Your task to perform on an android device: Open privacy settings Image 0: 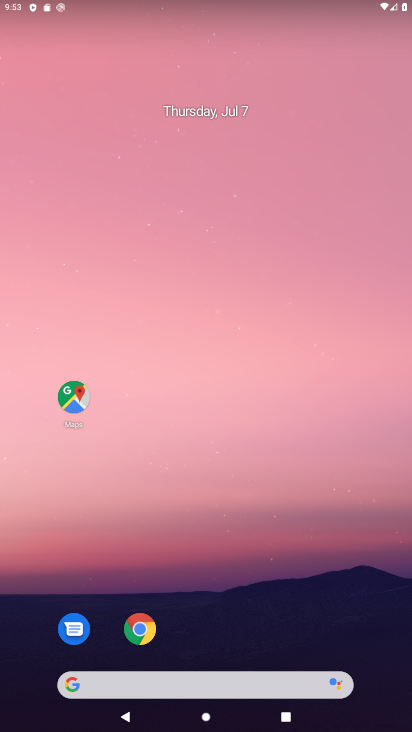
Step 0: drag from (387, 653) to (350, 177)
Your task to perform on an android device: Open privacy settings Image 1: 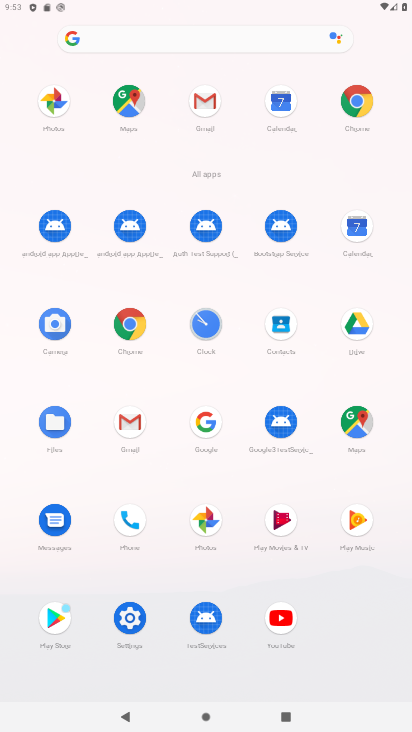
Step 1: click (130, 617)
Your task to perform on an android device: Open privacy settings Image 2: 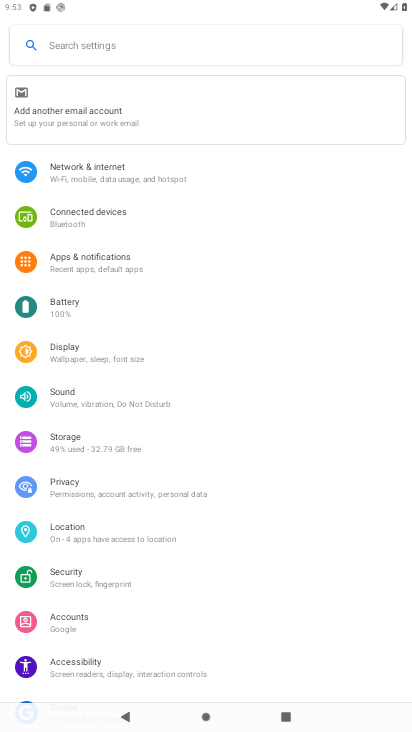
Step 2: click (59, 483)
Your task to perform on an android device: Open privacy settings Image 3: 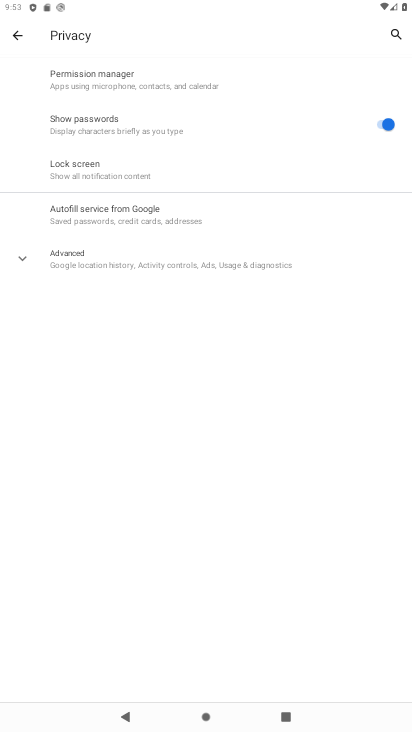
Step 3: click (20, 258)
Your task to perform on an android device: Open privacy settings Image 4: 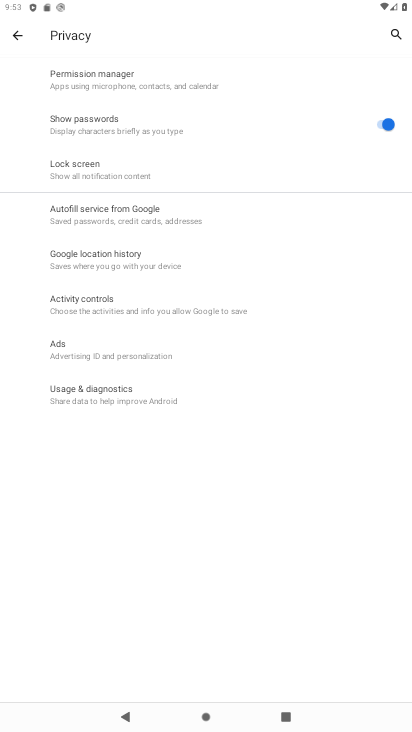
Step 4: task complete